Your task to perform on an android device: Clear the cart on newegg.com. Add usb-b to the cart on newegg.com Image 0: 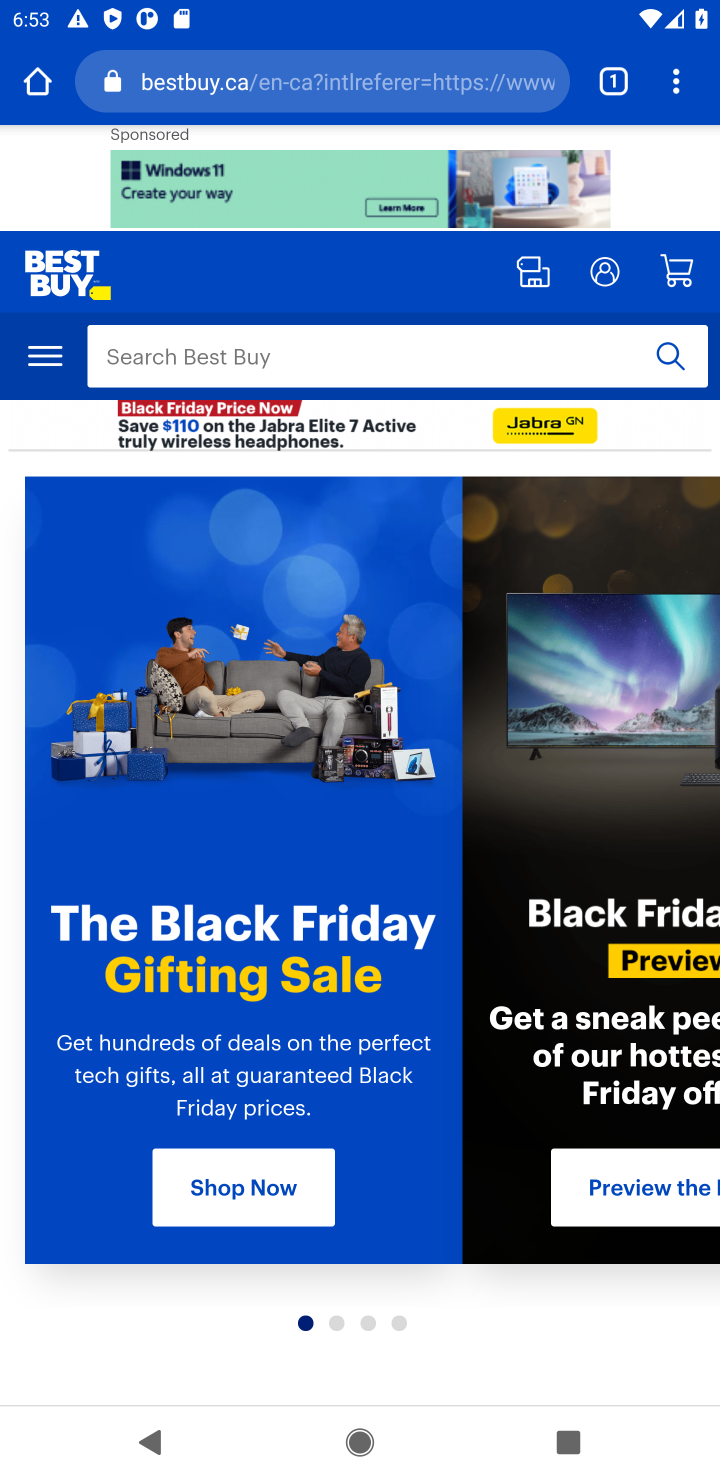
Step 0: task complete